Your task to perform on an android device: change text size in settings app Image 0: 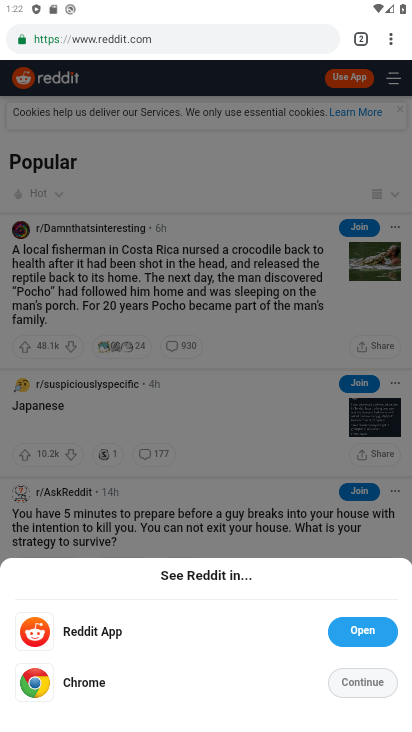
Step 0: press back button
Your task to perform on an android device: change text size in settings app Image 1: 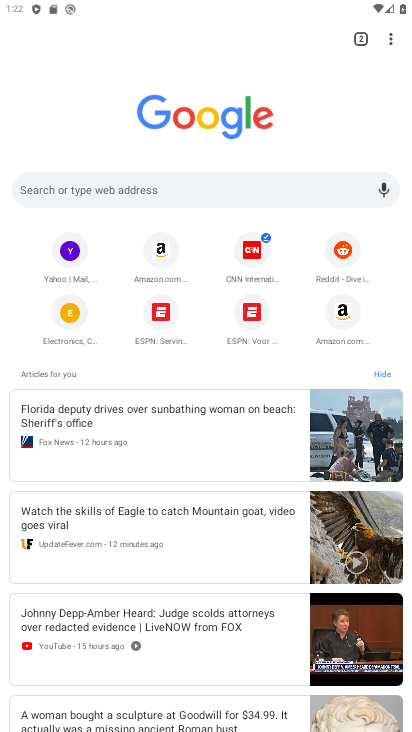
Step 1: press back button
Your task to perform on an android device: change text size in settings app Image 2: 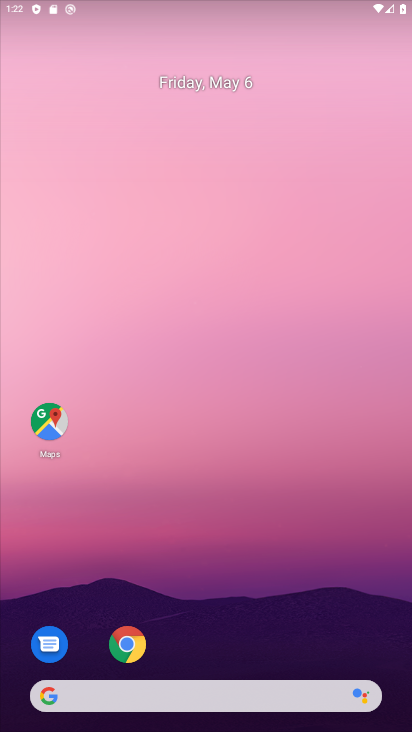
Step 2: drag from (262, 573) to (331, 65)
Your task to perform on an android device: change text size in settings app Image 3: 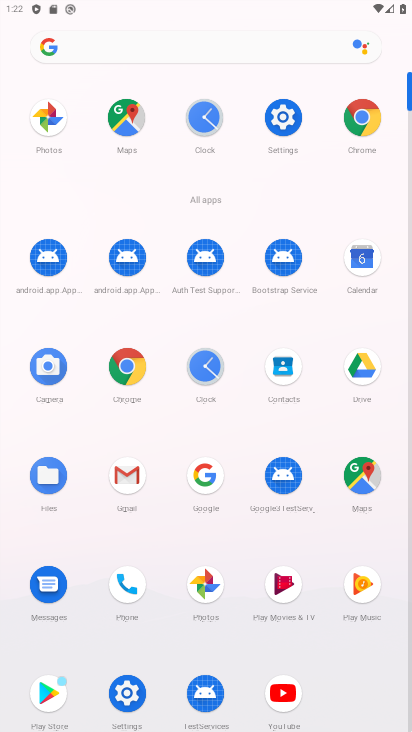
Step 3: click (286, 119)
Your task to perform on an android device: change text size in settings app Image 4: 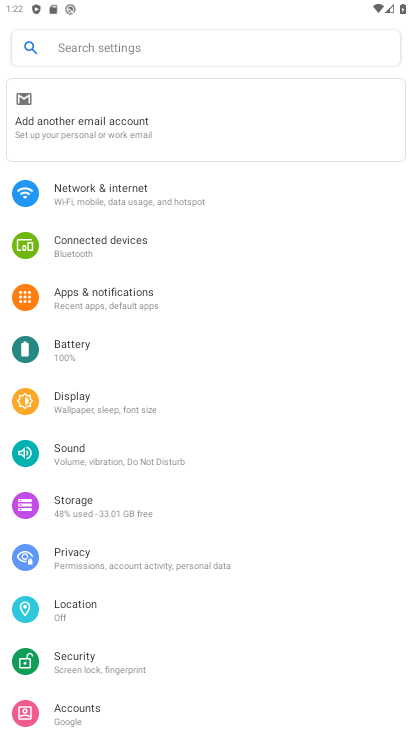
Step 4: click (125, 50)
Your task to perform on an android device: change text size in settings app Image 5: 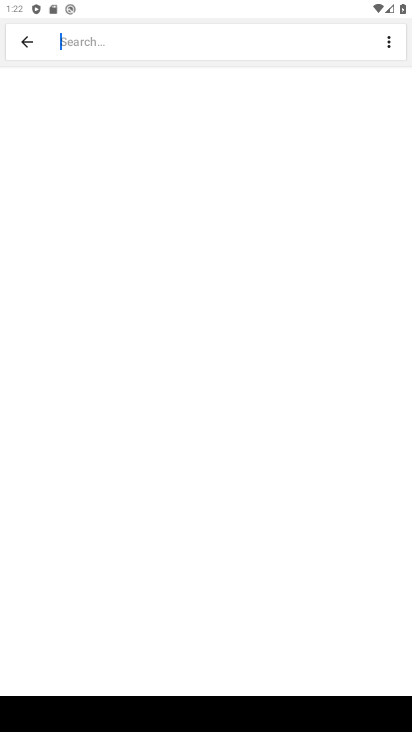
Step 5: type "text size"
Your task to perform on an android device: change text size in settings app Image 6: 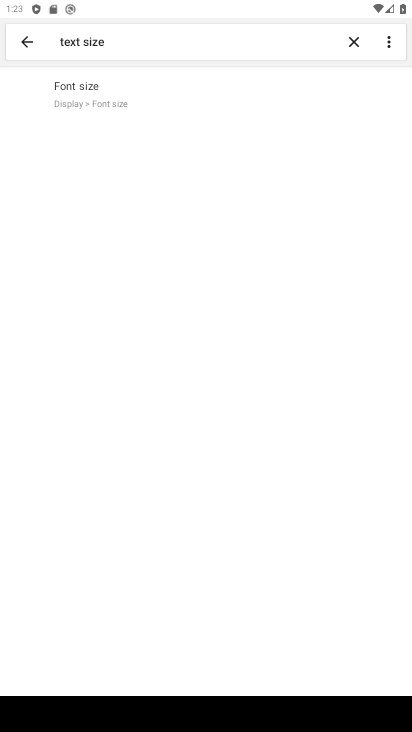
Step 6: click (51, 73)
Your task to perform on an android device: change text size in settings app Image 7: 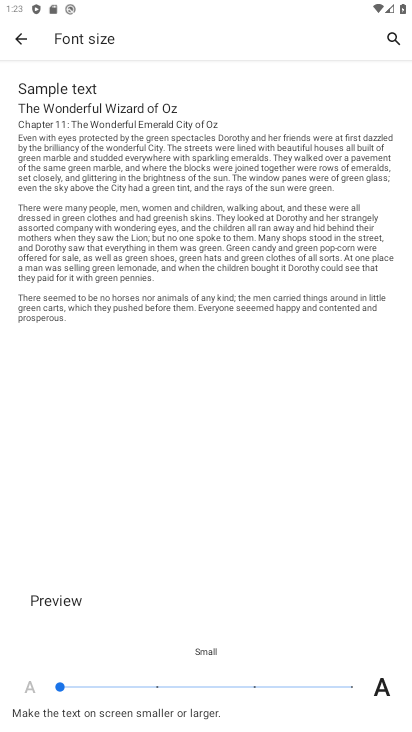
Step 7: task complete